Your task to perform on an android device: When is my next meeting? Image 0: 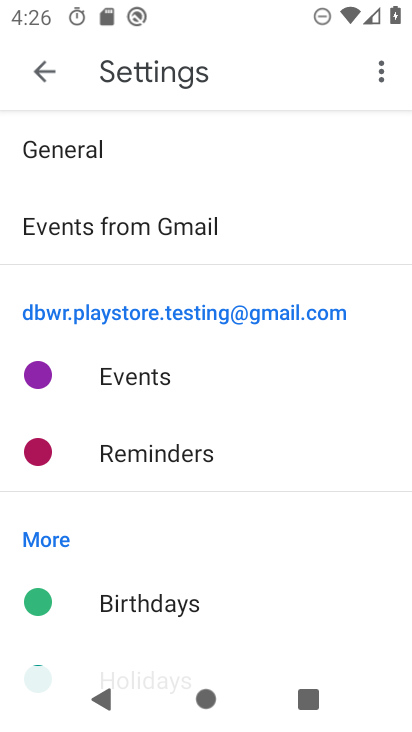
Step 0: press back button
Your task to perform on an android device: When is my next meeting? Image 1: 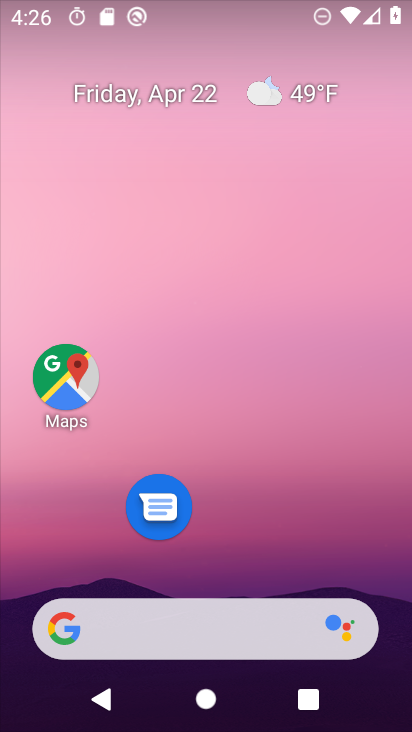
Step 1: drag from (214, 481) to (277, 44)
Your task to perform on an android device: When is my next meeting? Image 2: 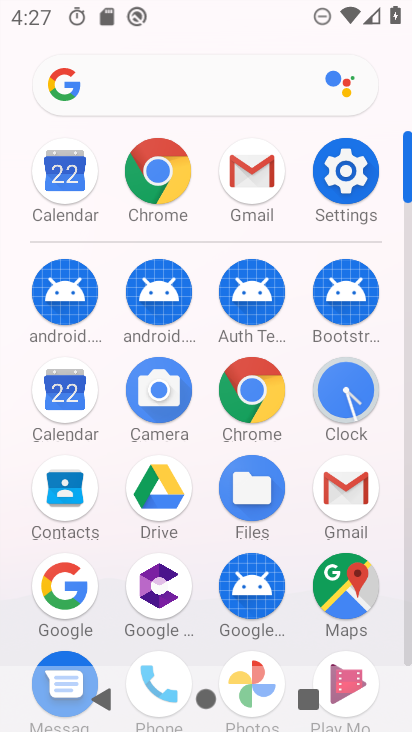
Step 2: click (67, 405)
Your task to perform on an android device: When is my next meeting? Image 3: 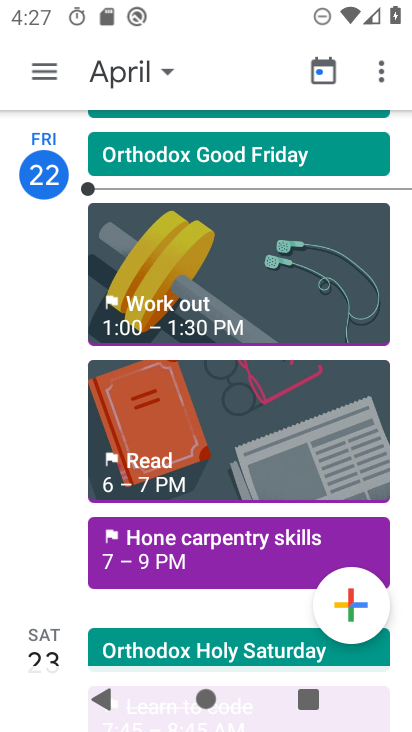
Step 3: task complete